Your task to perform on an android device: turn pop-ups on in chrome Image 0: 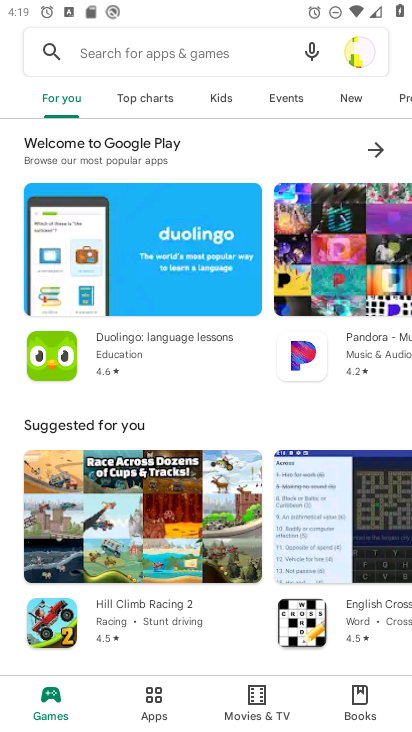
Step 0: press home button
Your task to perform on an android device: turn pop-ups on in chrome Image 1: 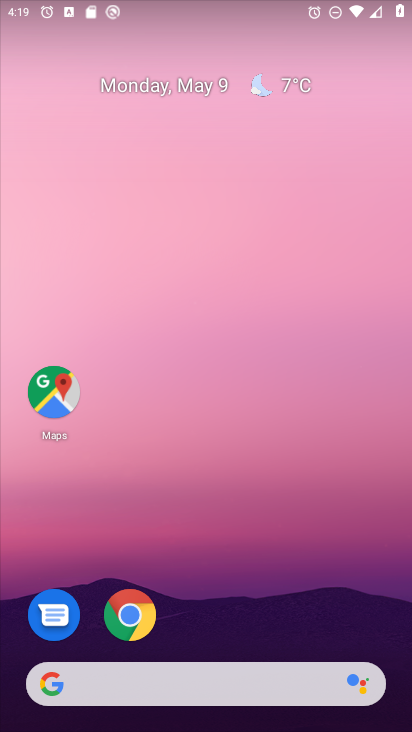
Step 1: click (129, 614)
Your task to perform on an android device: turn pop-ups on in chrome Image 2: 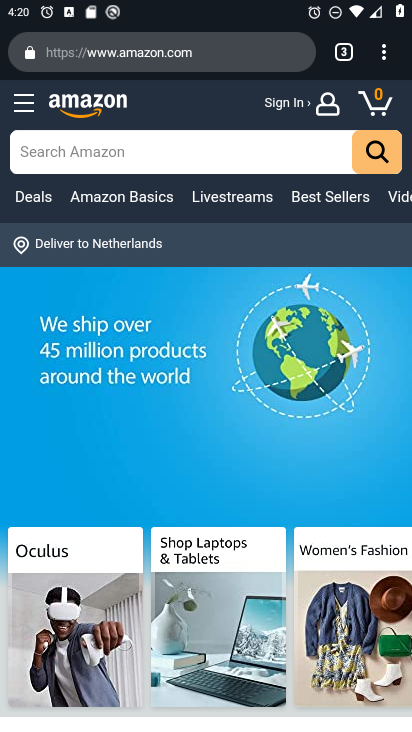
Step 2: click (383, 60)
Your task to perform on an android device: turn pop-ups on in chrome Image 3: 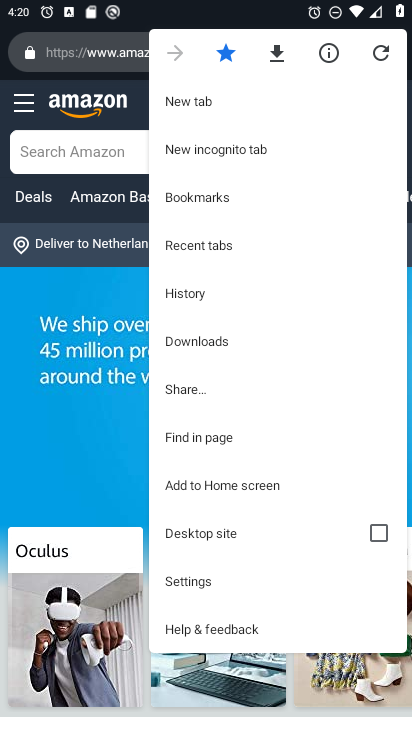
Step 3: click (189, 573)
Your task to perform on an android device: turn pop-ups on in chrome Image 4: 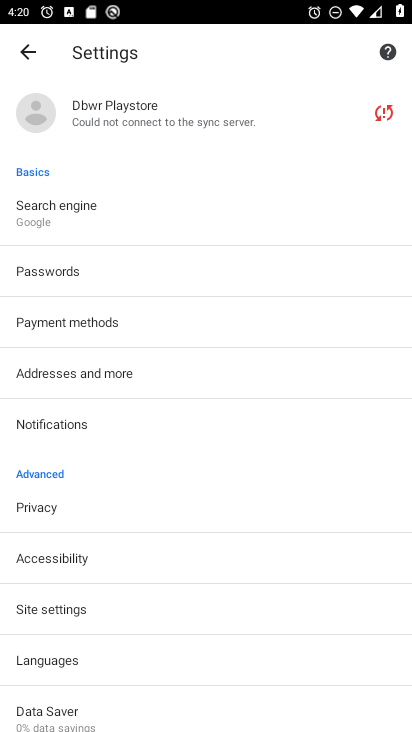
Step 4: click (50, 606)
Your task to perform on an android device: turn pop-ups on in chrome Image 5: 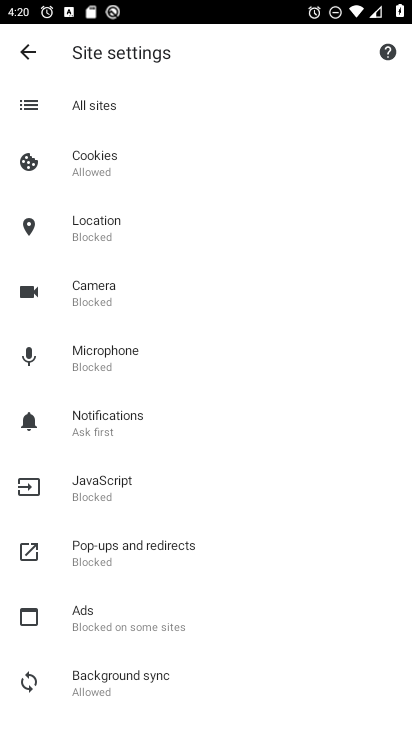
Step 5: click (92, 541)
Your task to perform on an android device: turn pop-ups on in chrome Image 6: 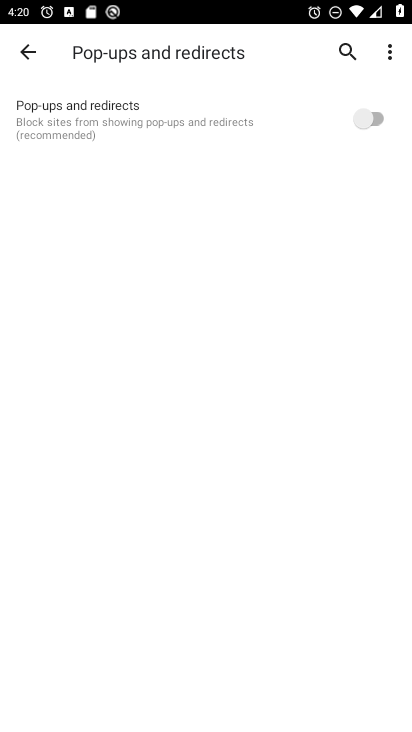
Step 6: click (377, 114)
Your task to perform on an android device: turn pop-ups on in chrome Image 7: 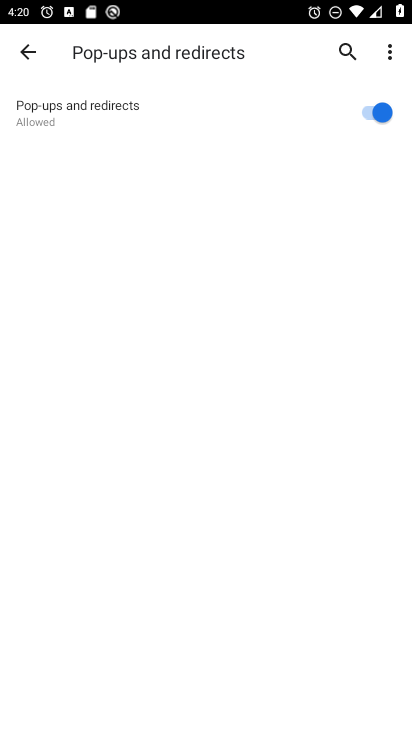
Step 7: task complete